Your task to perform on an android device: see creations saved in the google photos Image 0: 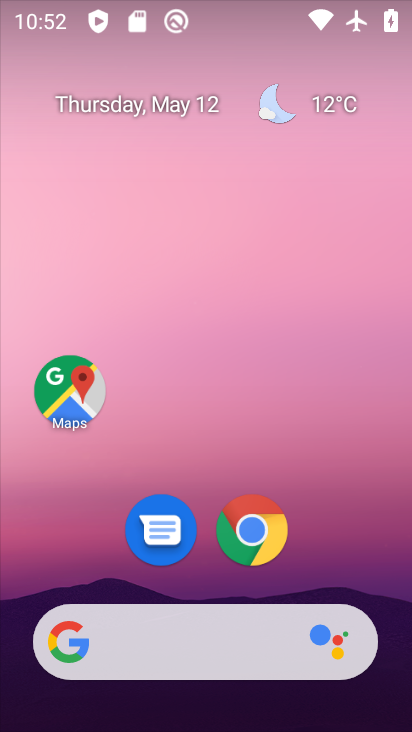
Step 0: press home button
Your task to perform on an android device: see creations saved in the google photos Image 1: 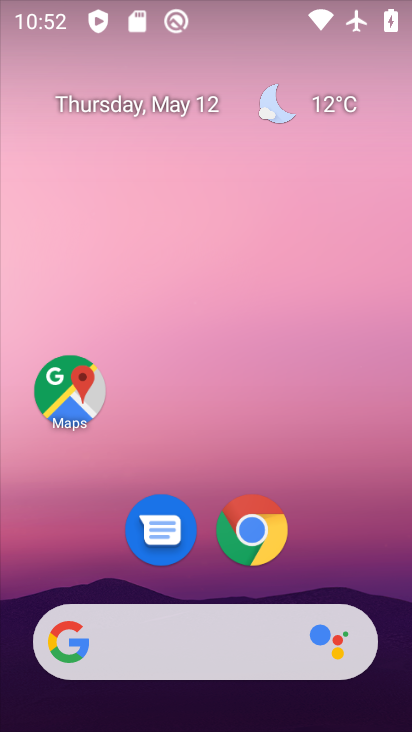
Step 1: drag from (158, 632) to (334, 115)
Your task to perform on an android device: see creations saved in the google photos Image 2: 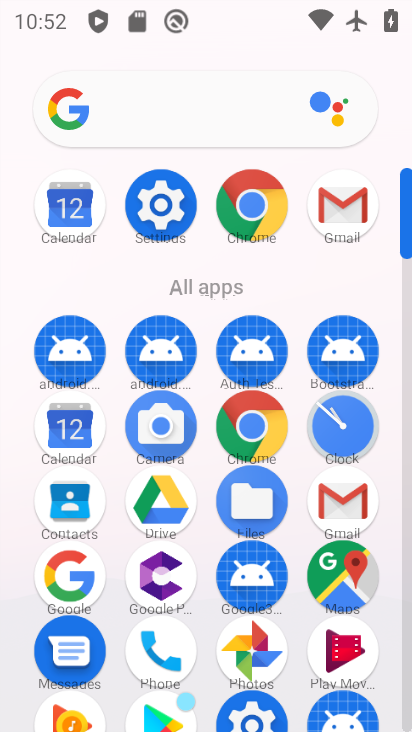
Step 2: click (252, 643)
Your task to perform on an android device: see creations saved in the google photos Image 3: 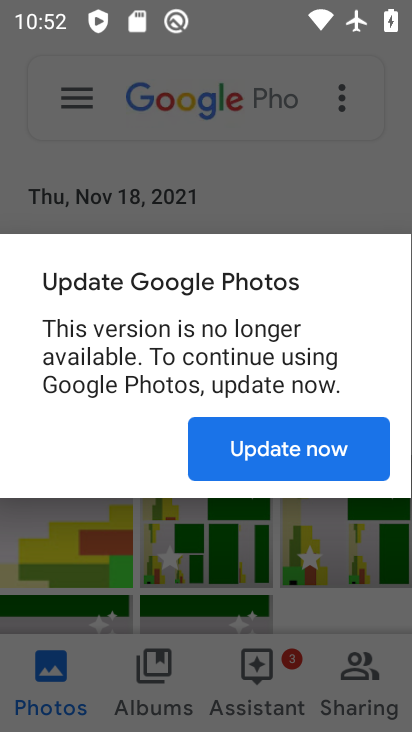
Step 3: click (269, 455)
Your task to perform on an android device: see creations saved in the google photos Image 4: 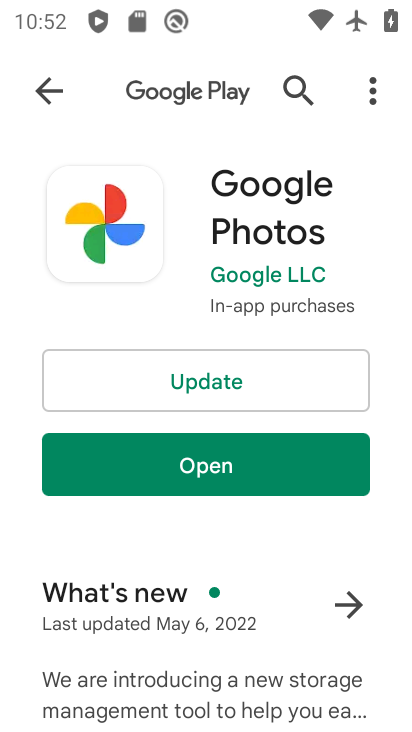
Step 4: click (190, 465)
Your task to perform on an android device: see creations saved in the google photos Image 5: 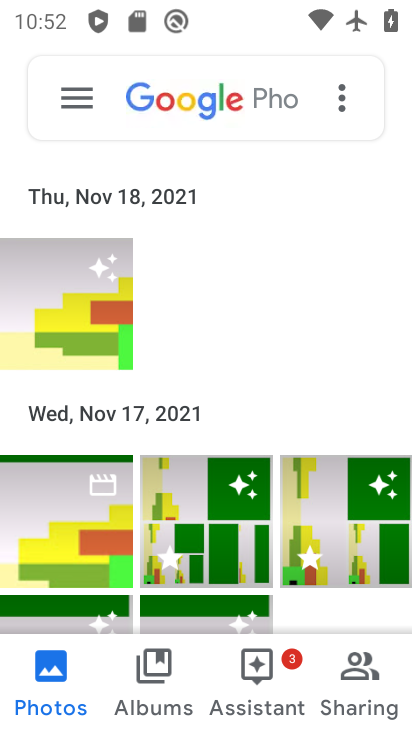
Step 5: click (160, 683)
Your task to perform on an android device: see creations saved in the google photos Image 6: 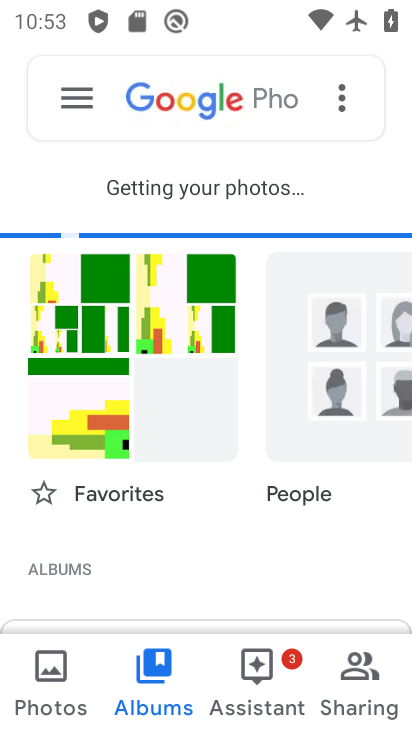
Step 6: click (224, 96)
Your task to perform on an android device: see creations saved in the google photos Image 7: 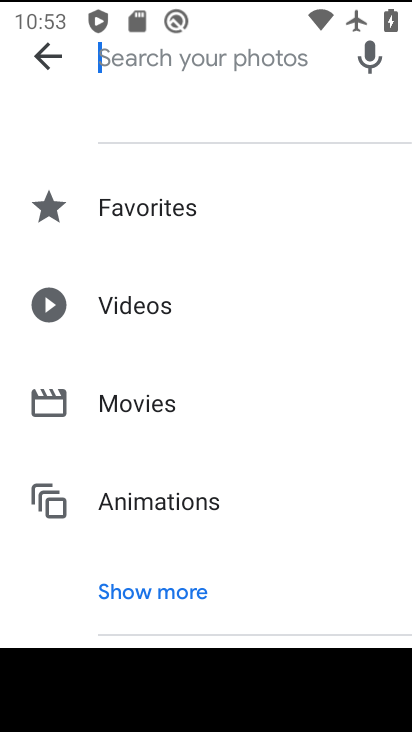
Step 7: click (133, 587)
Your task to perform on an android device: see creations saved in the google photos Image 8: 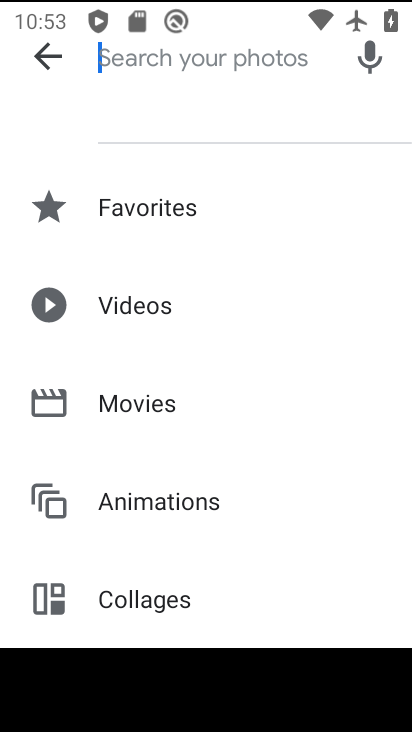
Step 8: drag from (197, 575) to (331, 155)
Your task to perform on an android device: see creations saved in the google photos Image 9: 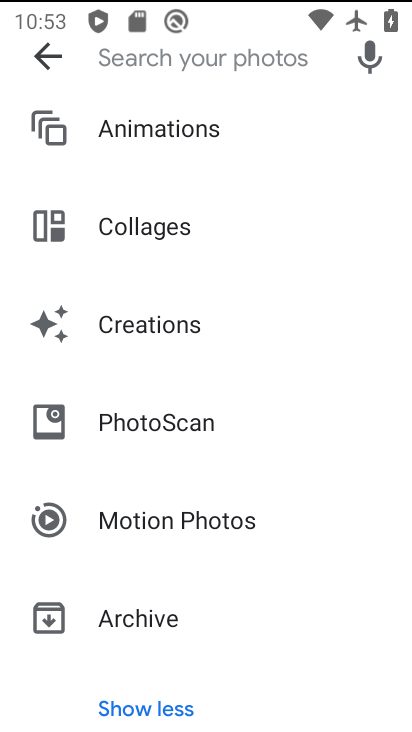
Step 9: click (124, 330)
Your task to perform on an android device: see creations saved in the google photos Image 10: 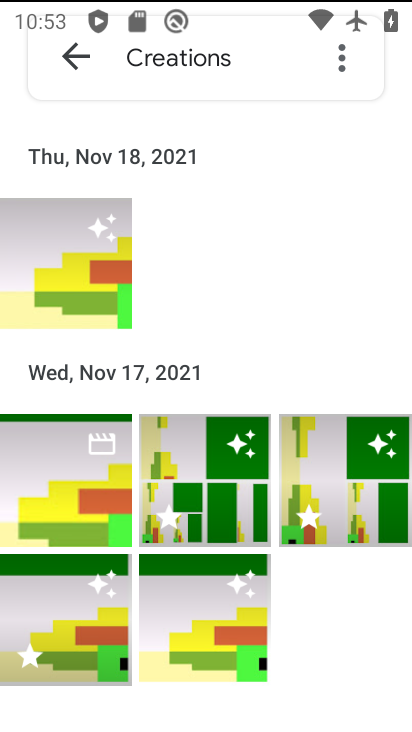
Step 10: task complete